Your task to perform on an android device: empty trash in google photos Image 0: 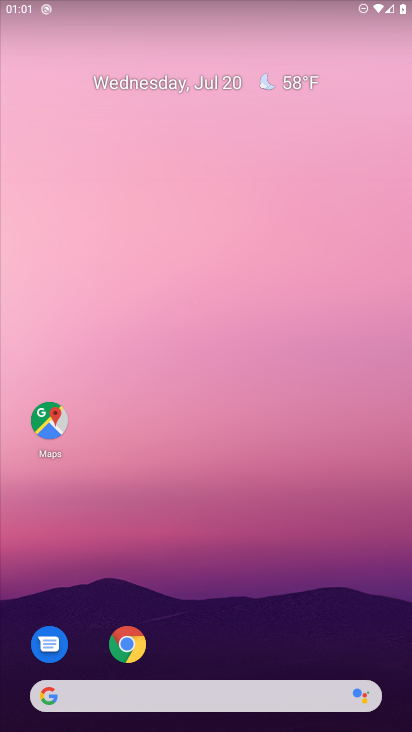
Step 0: drag from (55, 640) to (154, 222)
Your task to perform on an android device: empty trash in google photos Image 1: 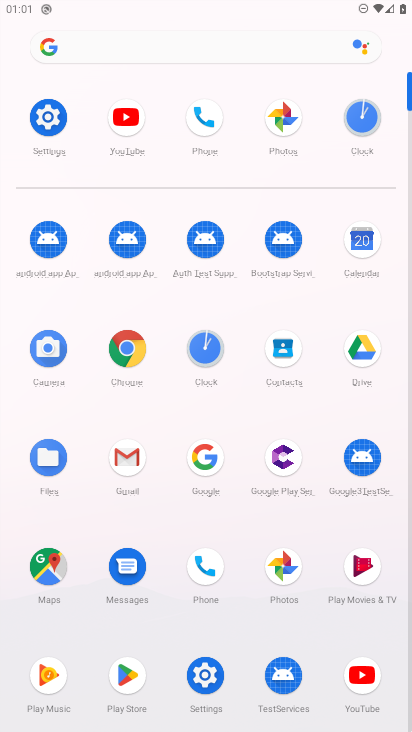
Step 1: click (271, 573)
Your task to perform on an android device: empty trash in google photos Image 2: 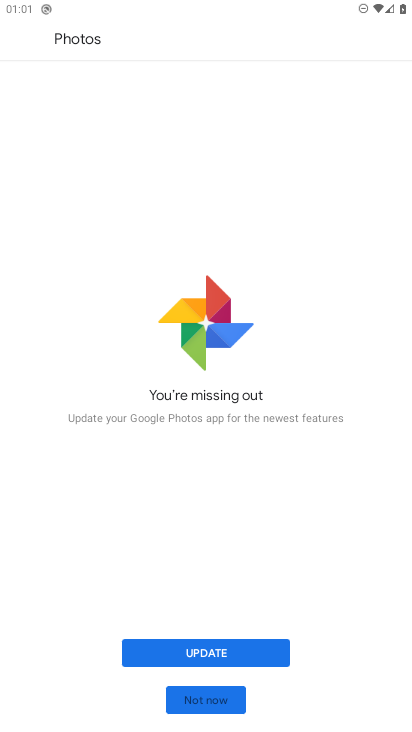
Step 2: click (203, 691)
Your task to perform on an android device: empty trash in google photos Image 3: 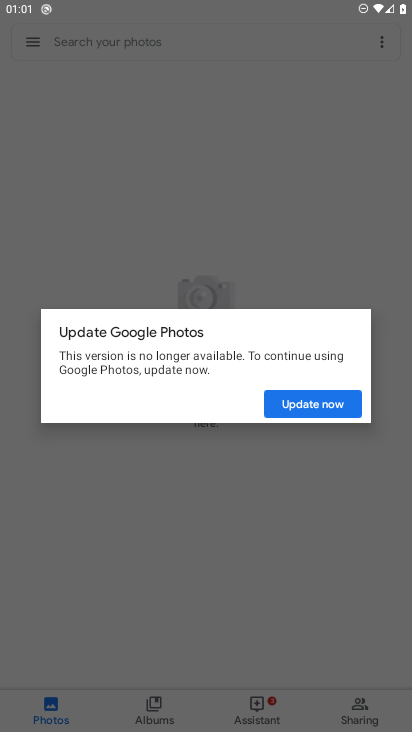
Step 3: click (306, 409)
Your task to perform on an android device: empty trash in google photos Image 4: 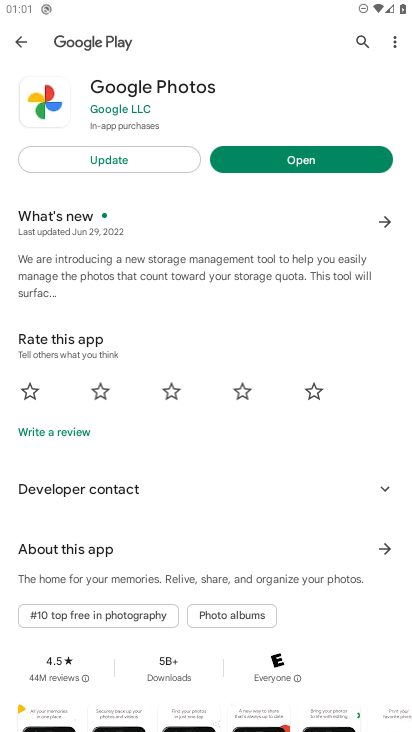
Step 4: click (304, 160)
Your task to perform on an android device: empty trash in google photos Image 5: 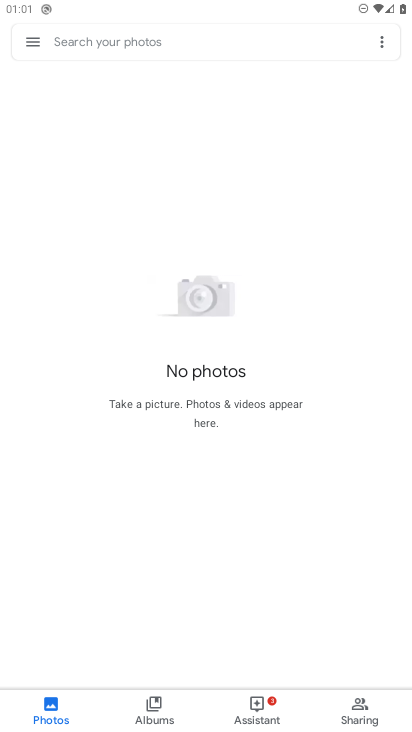
Step 5: click (39, 39)
Your task to perform on an android device: empty trash in google photos Image 6: 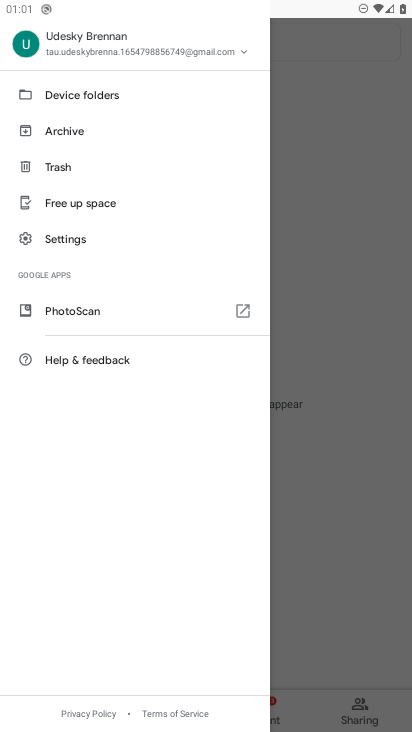
Step 6: click (61, 172)
Your task to perform on an android device: empty trash in google photos Image 7: 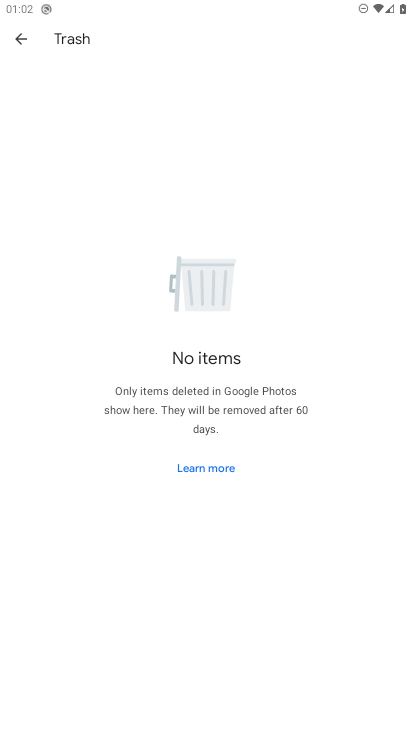
Step 7: task complete